Your task to perform on an android device: Go to location settings Image 0: 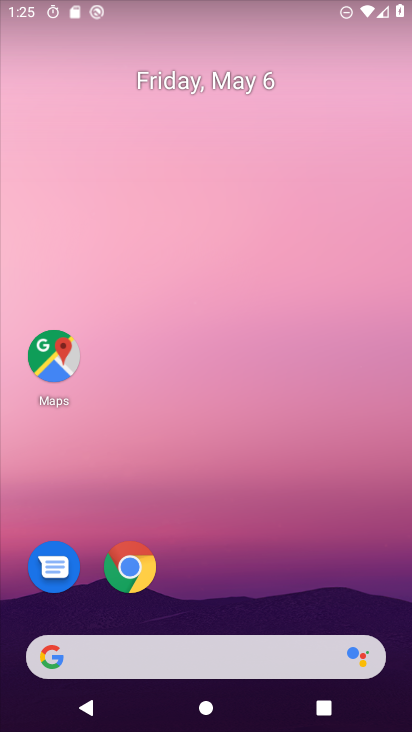
Step 0: drag from (323, 604) to (305, 0)
Your task to perform on an android device: Go to location settings Image 1: 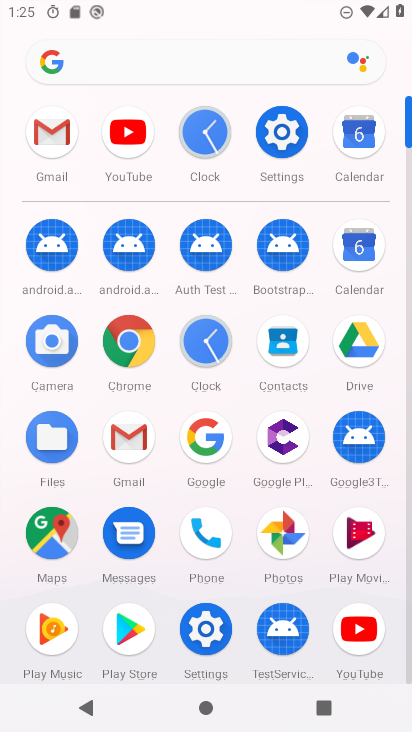
Step 1: click (282, 140)
Your task to perform on an android device: Go to location settings Image 2: 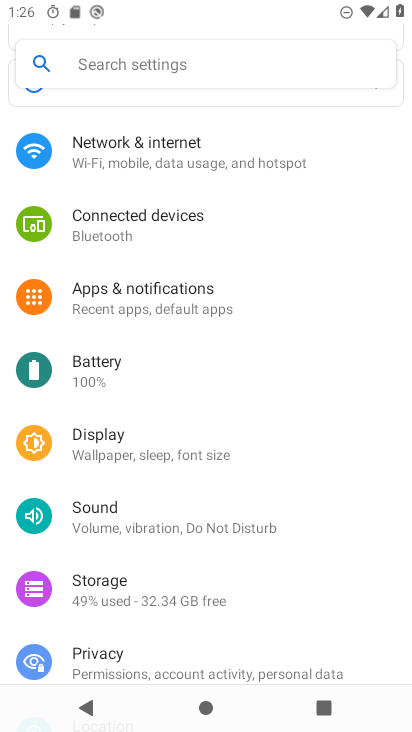
Step 2: drag from (259, 542) to (264, 320)
Your task to perform on an android device: Go to location settings Image 3: 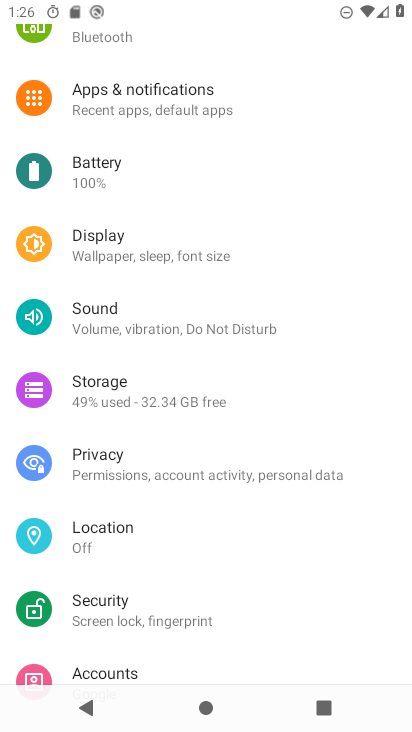
Step 3: click (122, 531)
Your task to perform on an android device: Go to location settings Image 4: 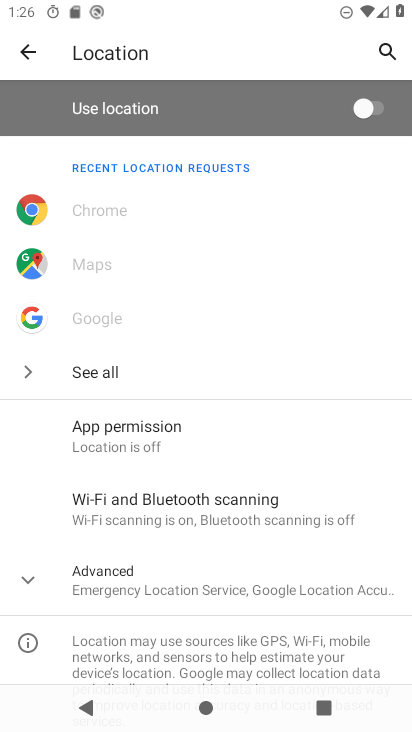
Step 4: task complete